Your task to perform on an android device: Add "usb-a" to the cart on bestbuy, then select checkout. Image 0: 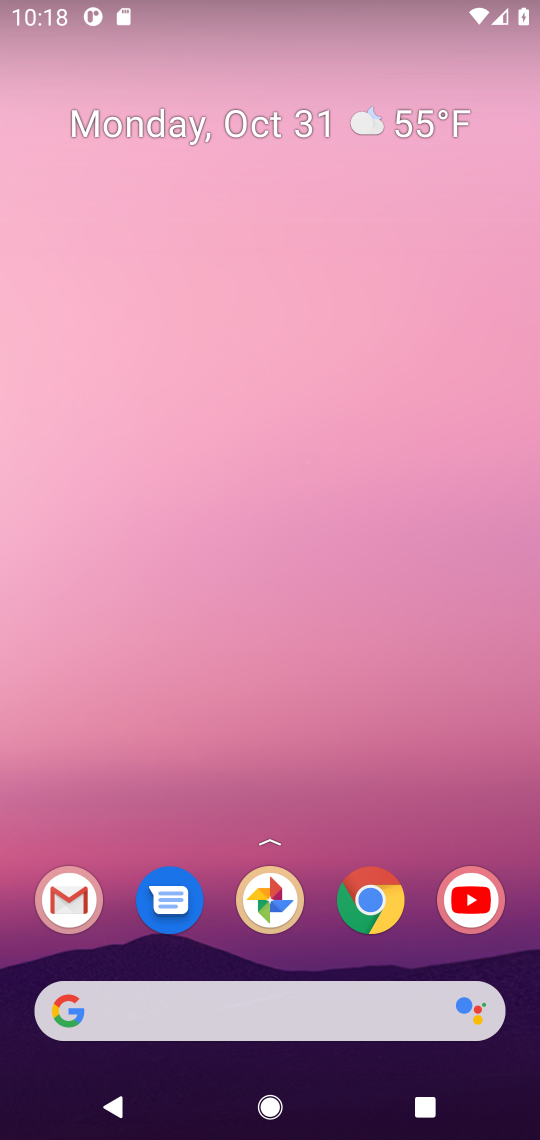
Step 0: click (354, 910)
Your task to perform on an android device: Add "usb-a" to the cart on bestbuy, then select checkout. Image 1: 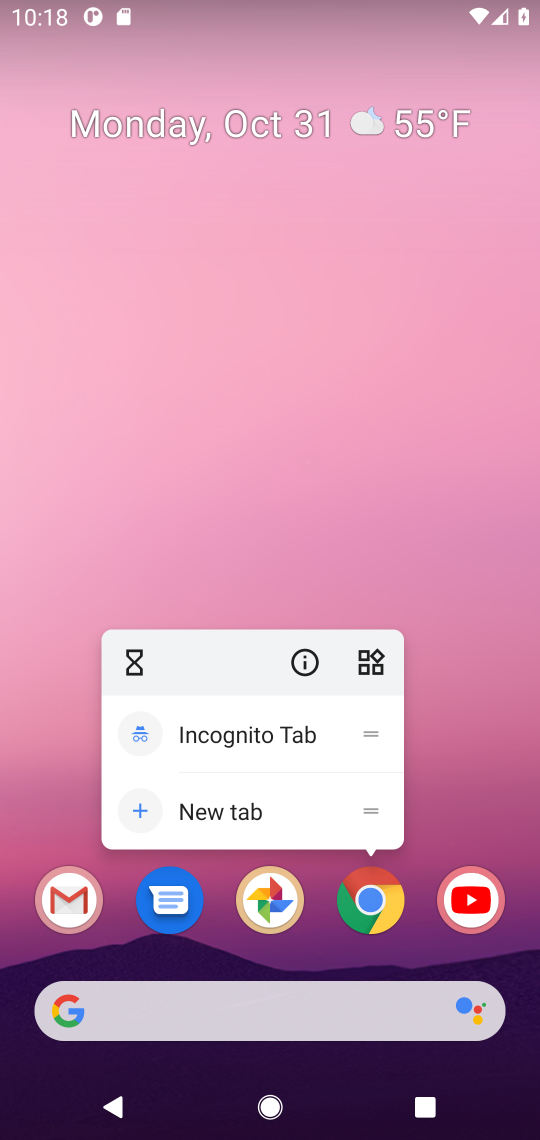
Step 1: click (377, 910)
Your task to perform on an android device: Add "usb-a" to the cart on bestbuy, then select checkout. Image 2: 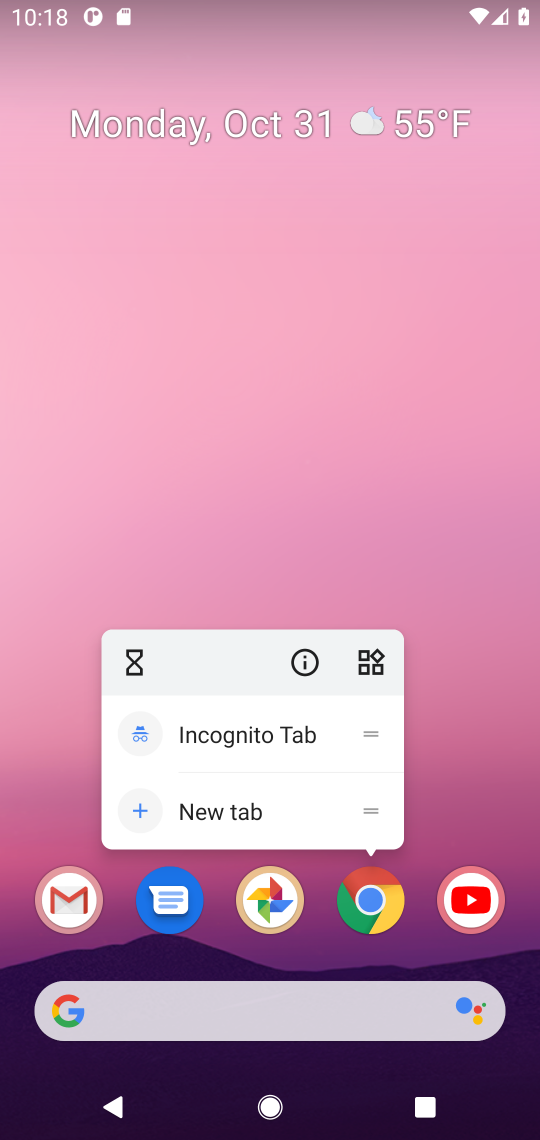
Step 2: click (377, 910)
Your task to perform on an android device: Add "usb-a" to the cart on bestbuy, then select checkout. Image 3: 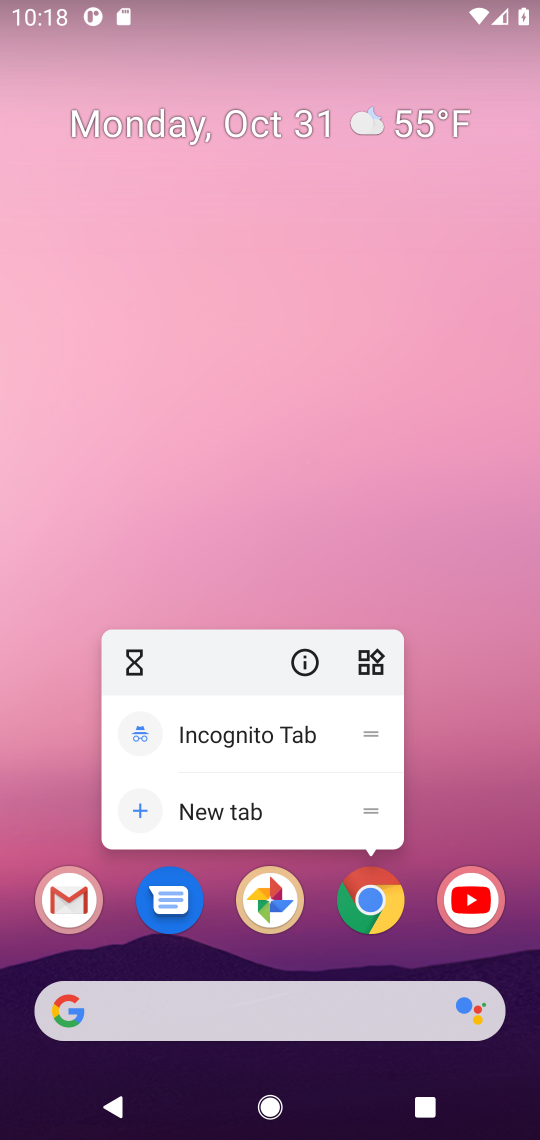
Step 3: click (465, 330)
Your task to perform on an android device: Add "usb-a" to the cart on bestbuy, then select checkout. Image 4: 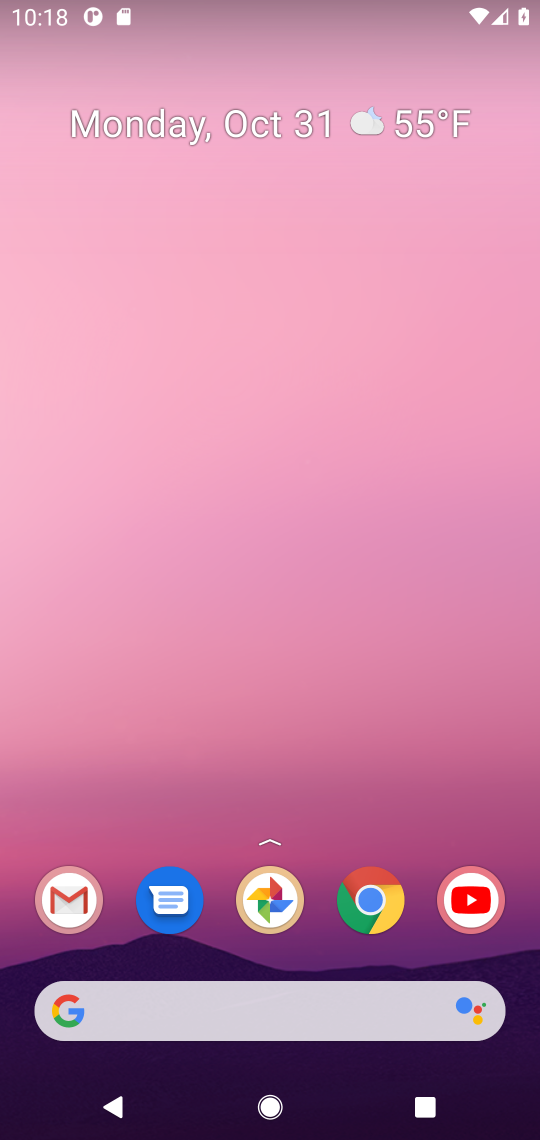
Step 4: click (379, 913)
Your task to perform on an android device: Add "usb-a" to the cart on bestbuy, then select checkout. Image 5: 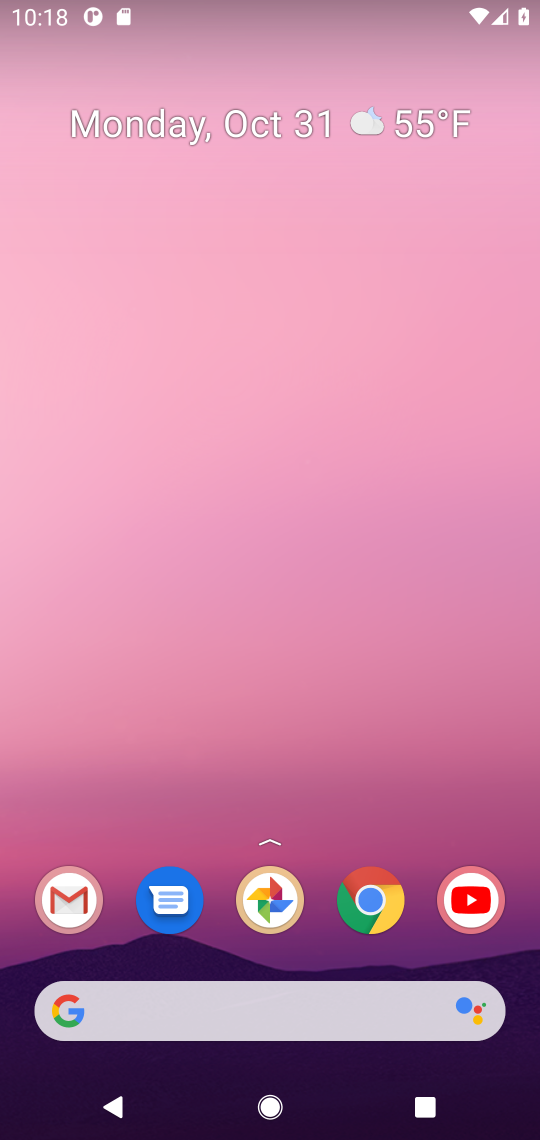
Step 5: click (379, 913)
Your task to perform on an android device: Add "usb-a" to the cart on bestbuy, then select checkout. Image 6: 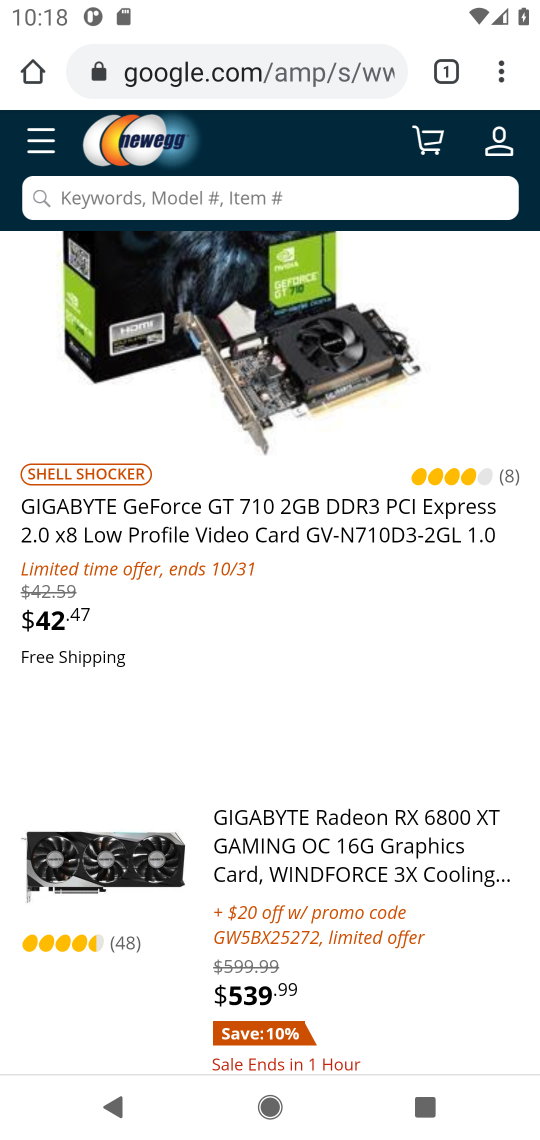
Step 6: click (227, 79)
Your task to perform on an android device: Add "usb-a" to the cart on bestbuy, then select checkout. Image 7: 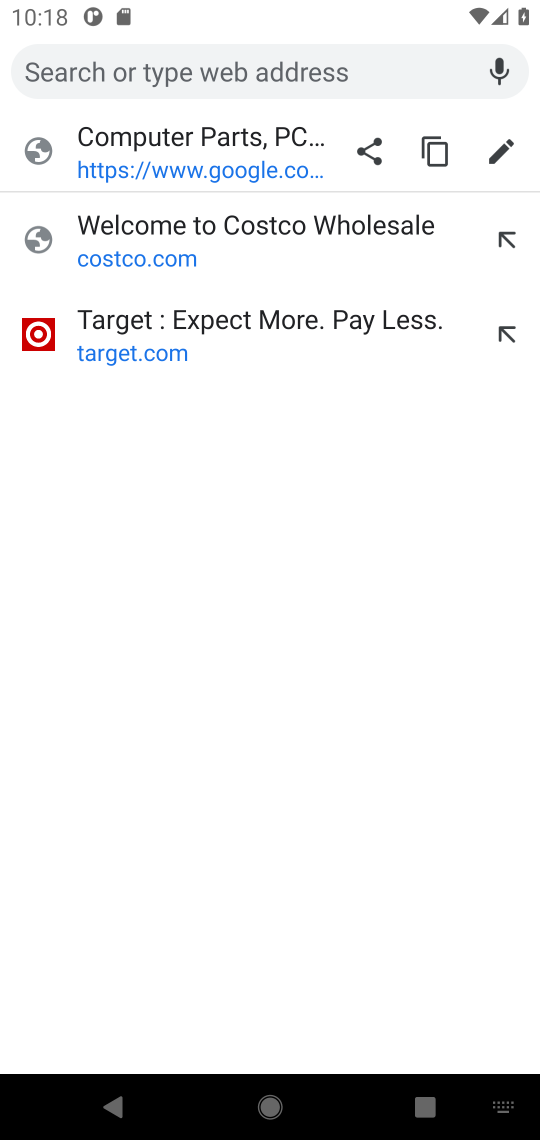
Step 7: type "bestbuy"
Your task to perform on an android device: Add "usb-a" to the cart on bestbuy, then select checkout. Image 8: 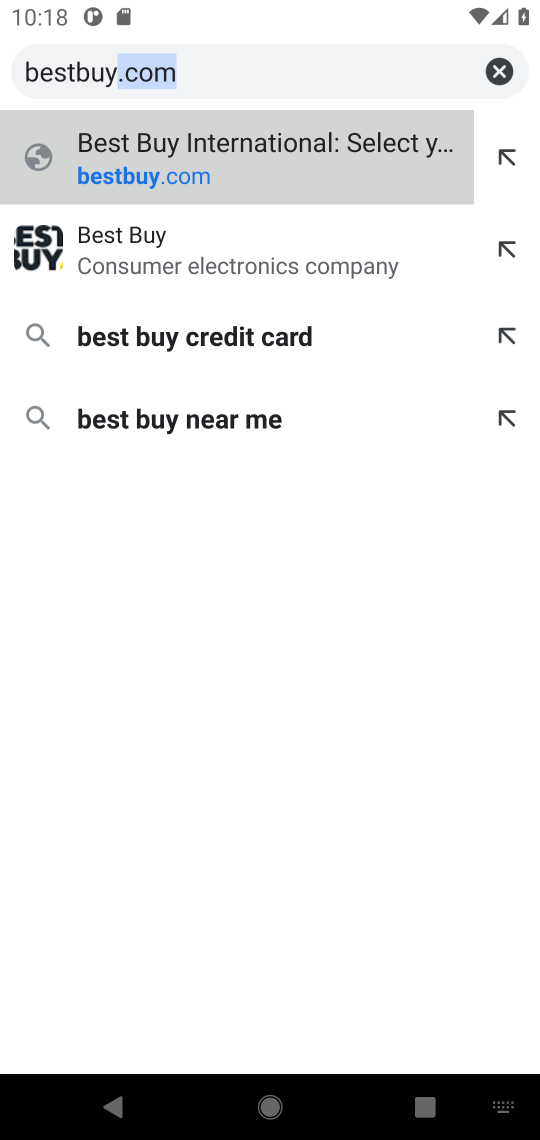
Step 8: click (154, 181)
Your task to perform on an android device: Add "usb-a" to the cart on bestbuy, then select checkout. Image 9: 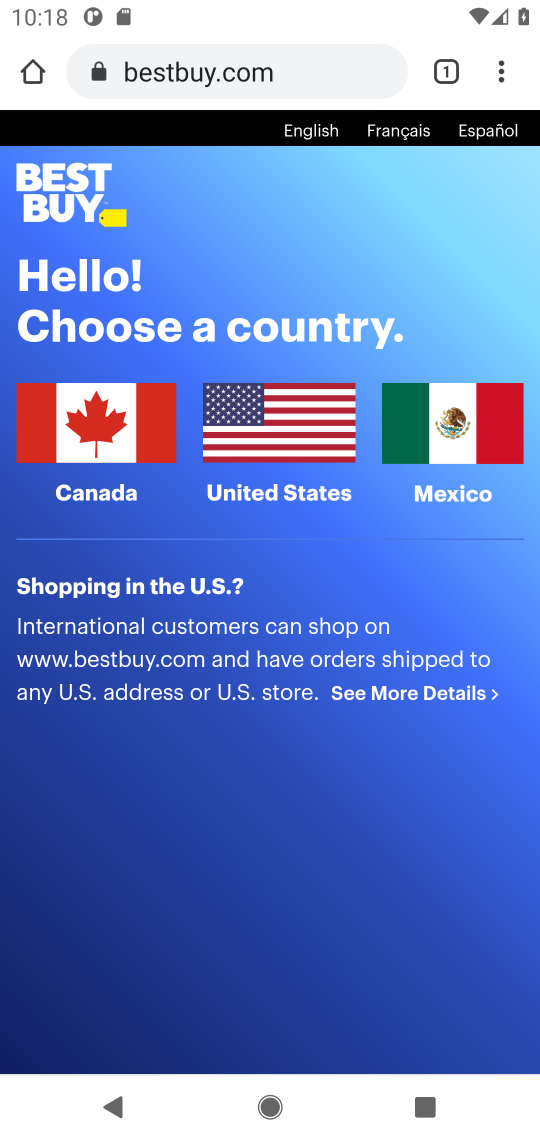
Step 9: click (249, 453)
Your task to perform on an android device: Add "usb-a" to the cart on bestbuy, then select checkout. Image 10: 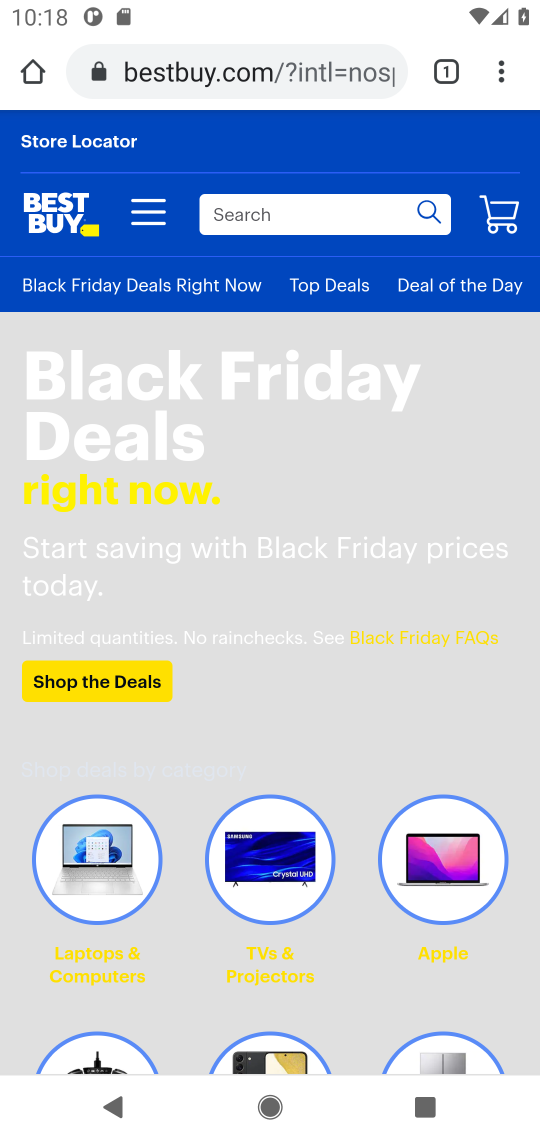
Step 10: click (289, 210)
Your task to perform on an android device: Add "usb-a" to the cart on bestbuy, then select checkout. Image 11: 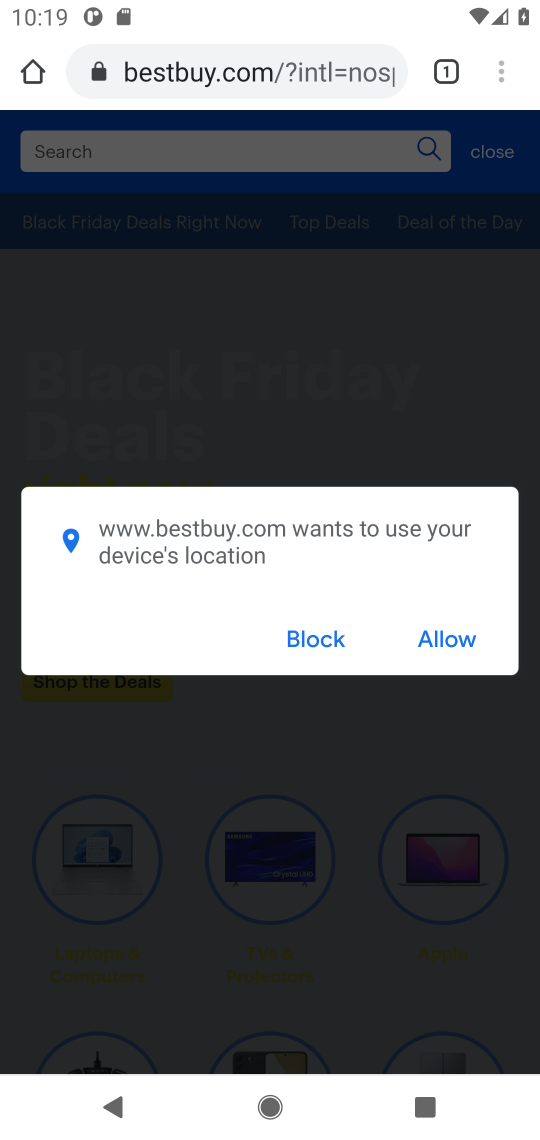
Step 11: click (323, 637)
Your task to perform on an android device: Add "usb-a" to the cart on bestbuy, then select checkout. Image 12: 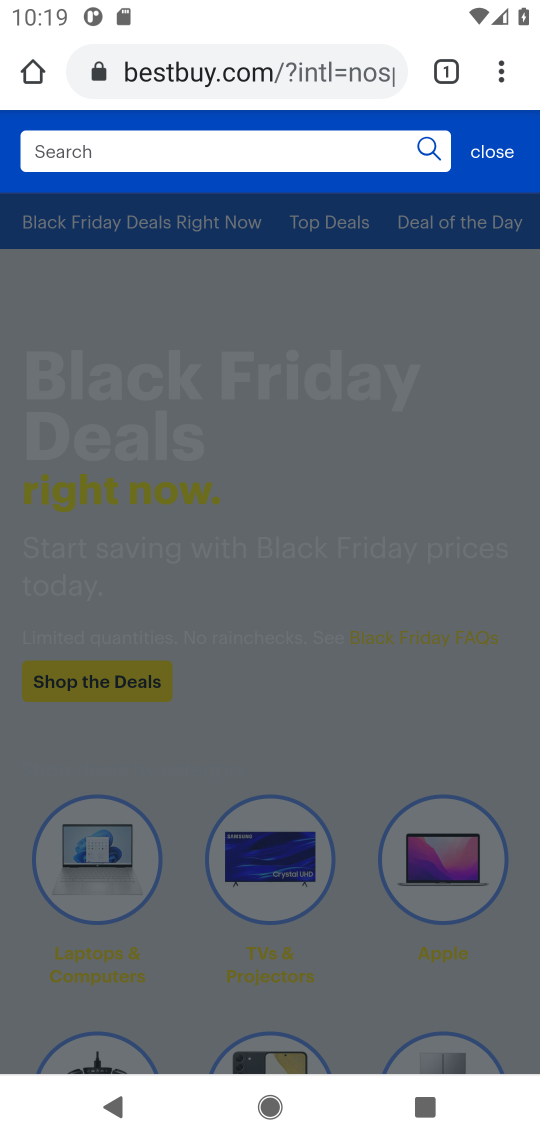
Step 12: click (270, 155)
Your task to perform on an android device: Add "usb-a" to the cart on bestbuy, then select checkout. Image 13: 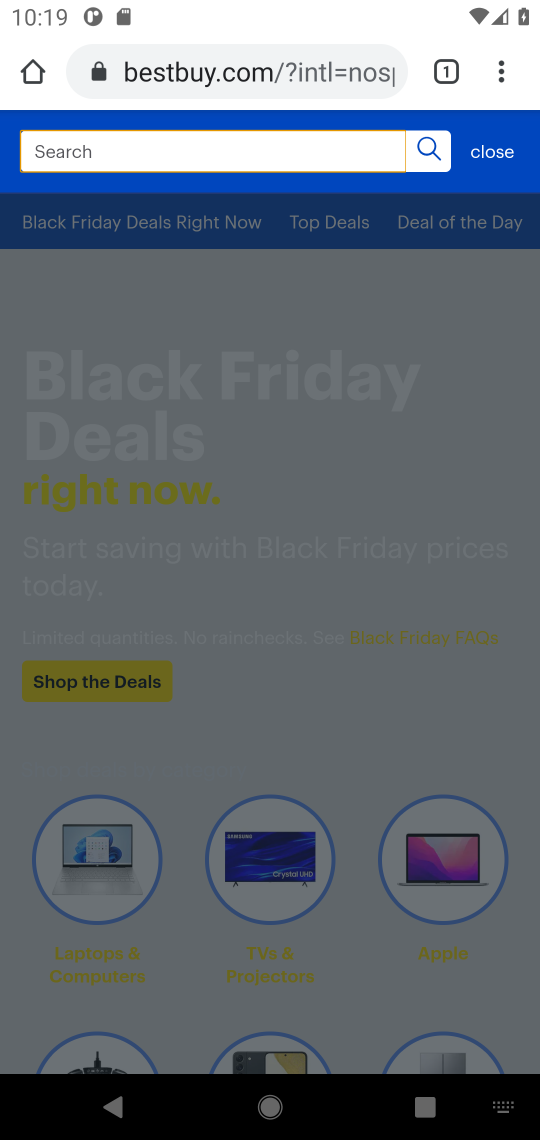
Step 13: type "usb-a"
Your task to perform on an android device: Add "usb-a" to the cart on bestbuy, then select checkout. Image 14: 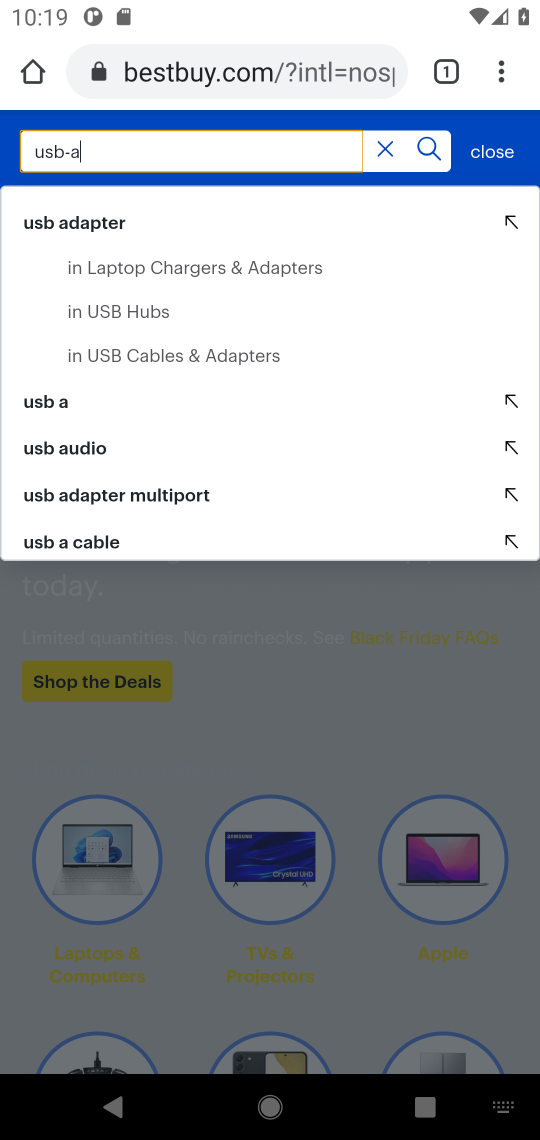
Step 14: click (62, 410)
Your task to perform on an android device: Add "usb-a" to the cart on bestbuy, then select checkout. Image 15: 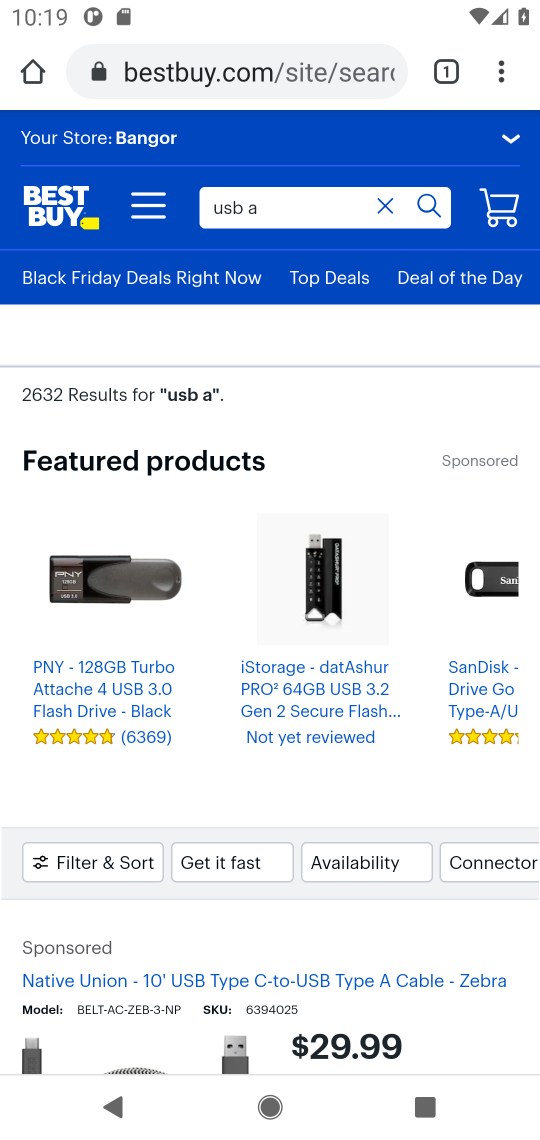
Step 15: task complete